Your task to perform on an android device: open the mobile data screen to see how much data has been used Image 0: 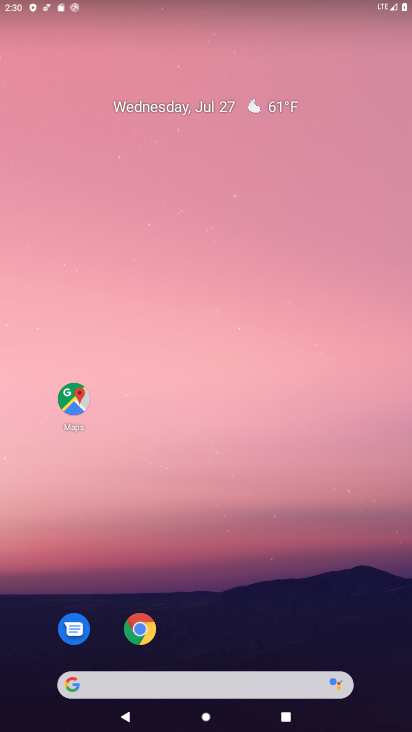
Step 0: drag from (199, 680) to (382, 34)
Your task to perform on an android device: open the mobile data screen to see how much data has been used Image 1: 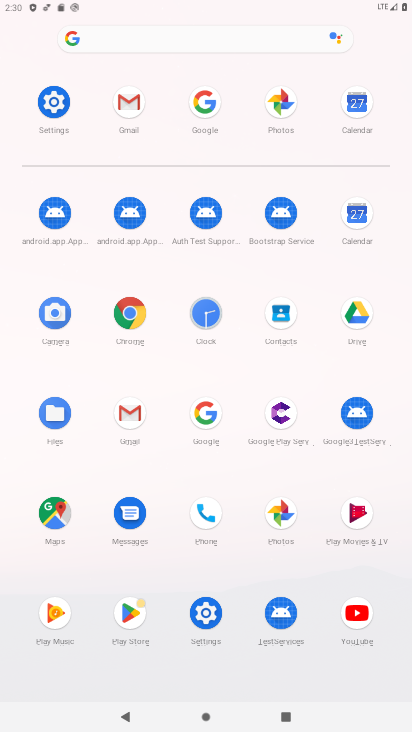
Step 1: click (53, 102)
Your task to perform on an android device: open the mobile data screen to see how much data has been used Image 2: 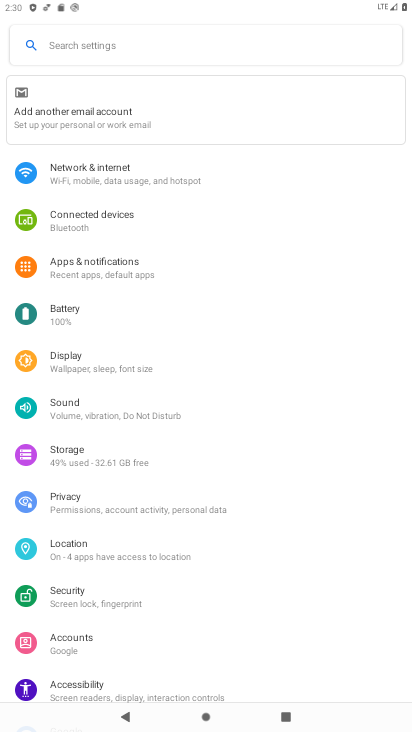
Step 2: click (90, 175)
Your task to perform on an android device: open the mobile data screen to see how much data has been used Image 3: 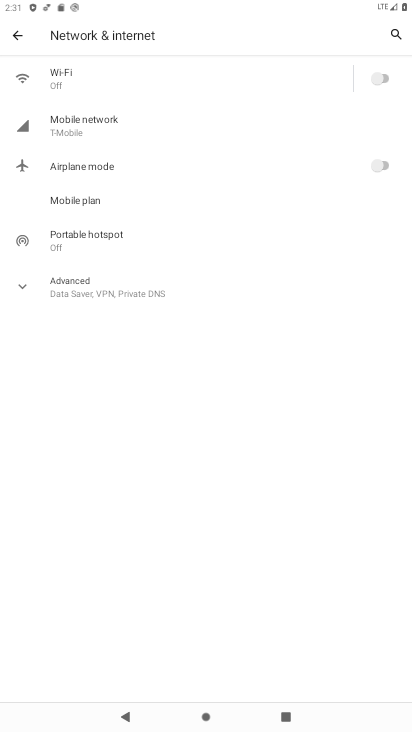
Step 3: click (88, 128)
Your task to perform on an android device: open the mobile data screen to see how much data has been used Image 4: 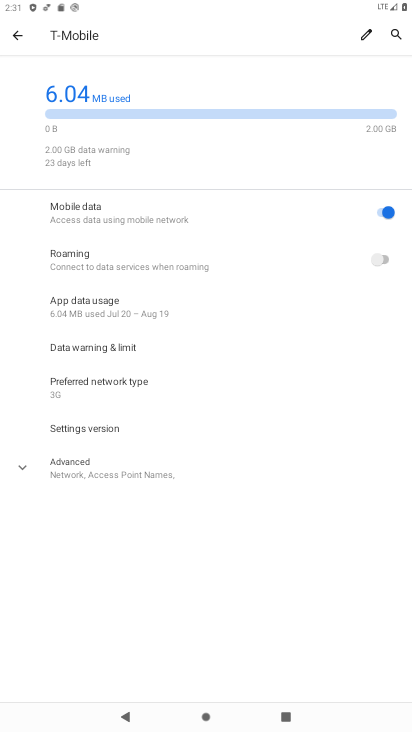
Step 4: task complete